Your task to perform on an android device: turn off location Image 0: 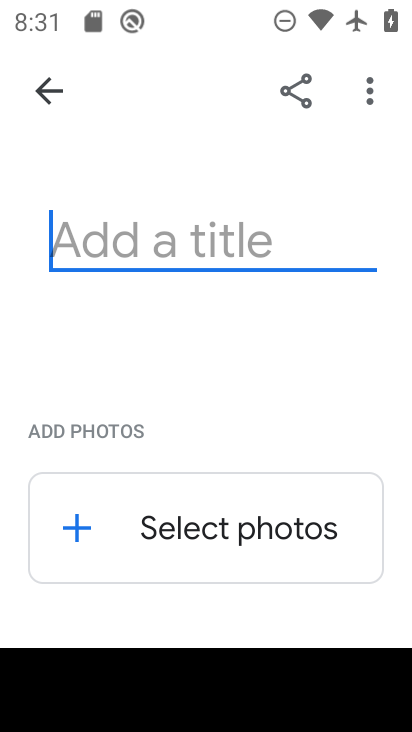
Step 0: press home button
Your task to perform on an android device: turn off location Image 1: 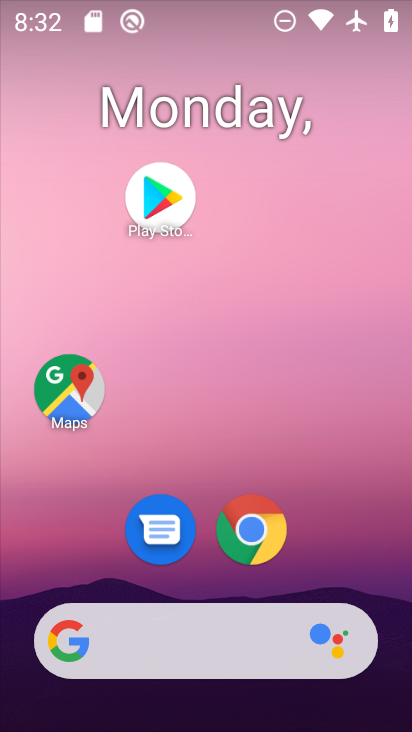
Step 1: drag from (327, 420) to (213, 48)
Your task to perform on an android device: turn off location Image 2: 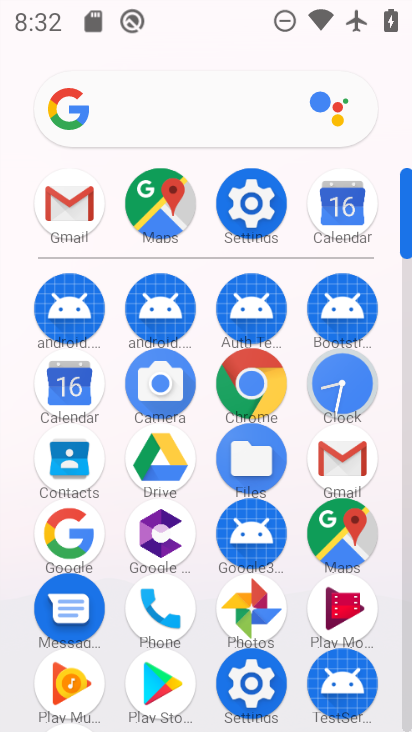
Step 2: click (246, 211)
Your task to perform on an android device: turn off location Image 3: 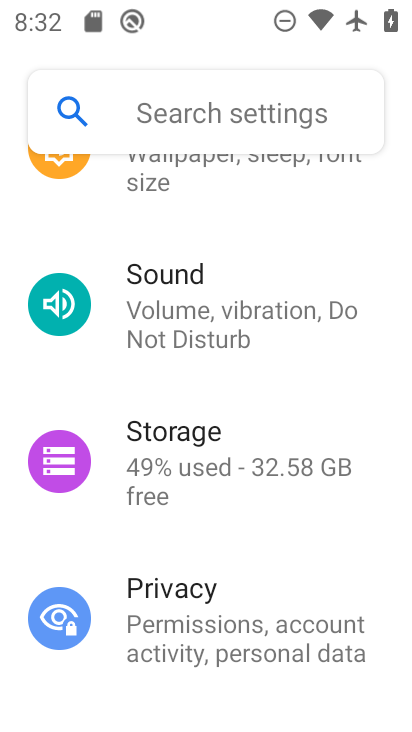
Step 3: drag from (208, 497) to (219, 288)
Your task to perform on an android device: turn off location Image 4: 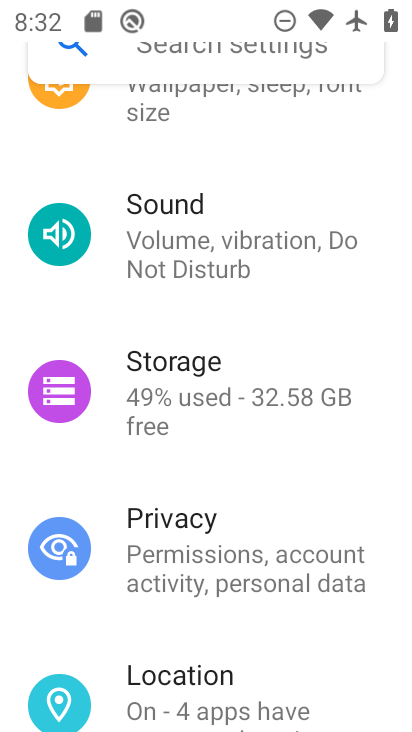
Step 4: click (161, 667)
Your task to perform on an android device: turn off location Image 5: 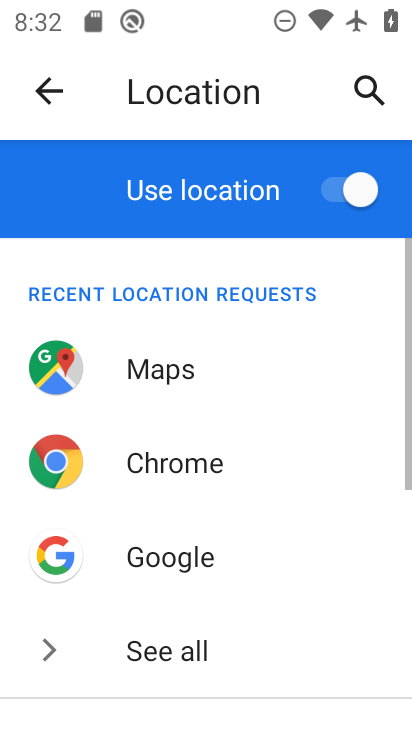
Step 5: click (358, 192)
Your task to perform on an android device: turn off location Image 6: 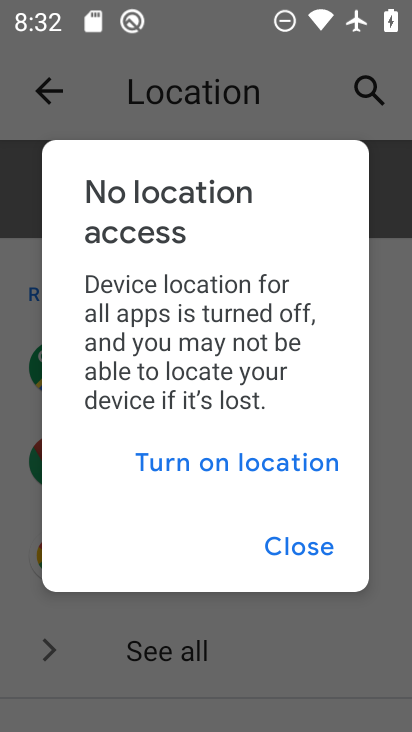
Step 6: click (282, 552)
Your task to perform on an android device: turn off location Image 7: 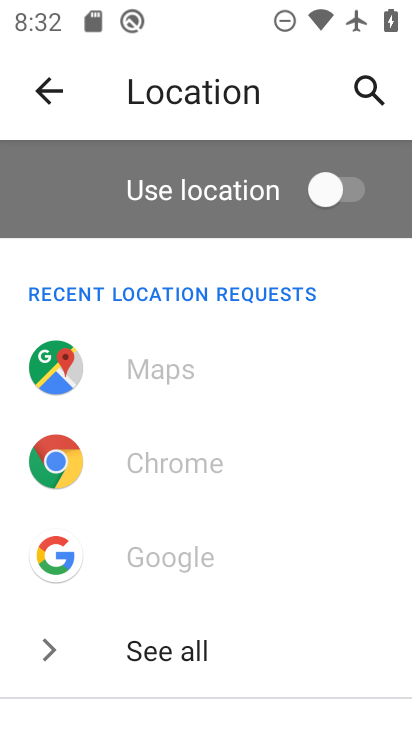
Step 7: task complete